Your task to perform on an android device: turn off javascript in the chrome app Image 0: 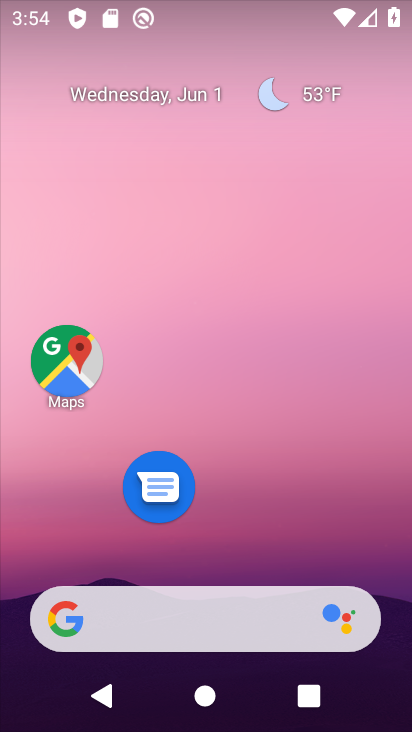
Step 0: drag from (230, 526) to (308, 8)
Your task to perform on an android device: turn off javascript in the chrome app Image 1: 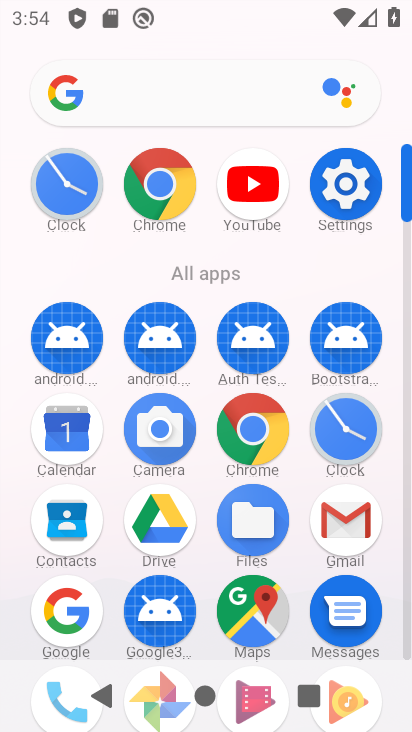
Step 1: click (251, 428)
Your task to perform on an android device: turn off javascript in the chrome app Image 2: 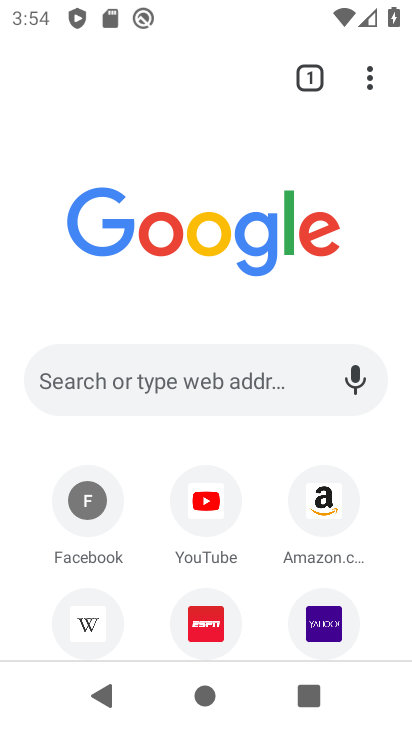
Step 2: click (356, 78)
Your task to perform on an android device: turn off javascript in the chrome app Image 3: 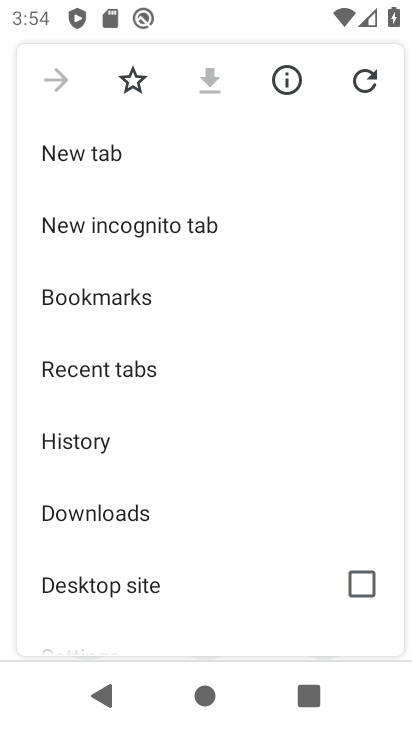
Step 3: drag from (131, 561) to (143, 349)
Your task to perform on an android device: turn off javascript in the chrome app Image 4: 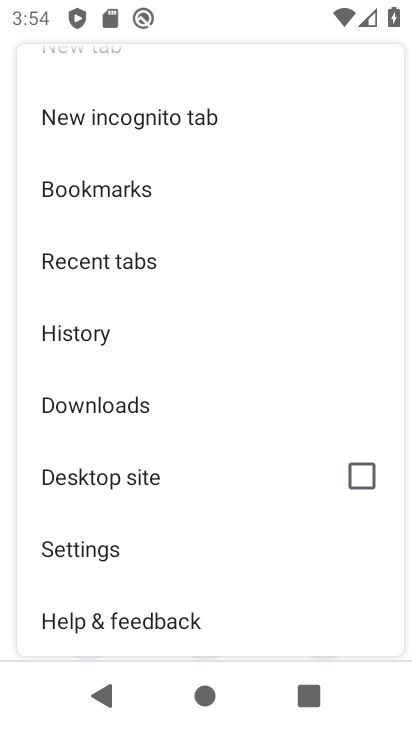
Step 4: click (101, 547)
Your task to perform on an android device: turn off javascript in the chrome app Image 5: 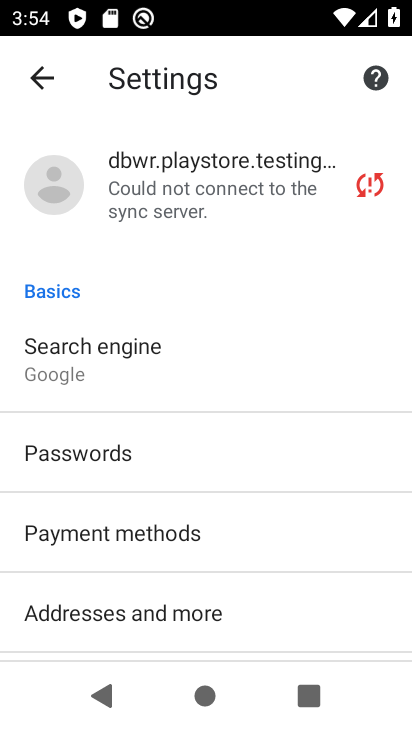
Step 5: drag from (191, 547) to (237, 75)
Your task to perform on an android device: turn off javascript in the chrome app Image 6: 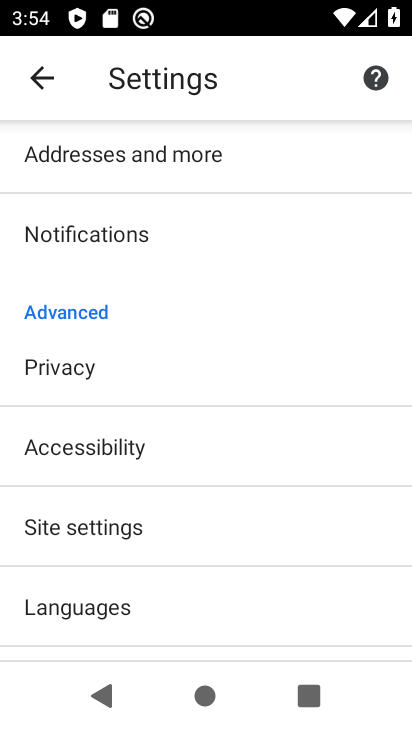
Step 6: click (118, 511)
Your task to perform on an android device: turn off javascript in the chrome app Image 7: 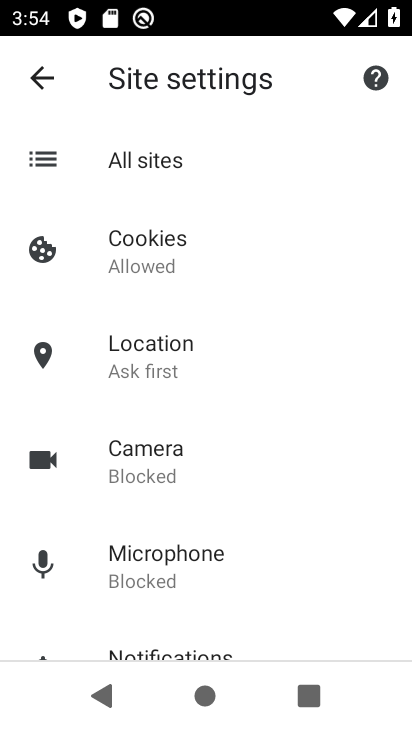
Step 7: drag from (206, 469) to (212, 175)
Your task to perform on an android device: turn off javascript in the chrome app Image 8: 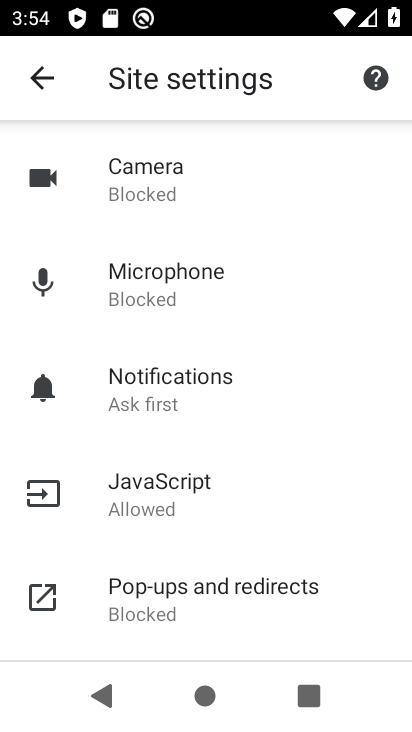
Step 8: click (184, 493)
Your task to perform on an android device: turn off javascript in the chrome app Image 9: 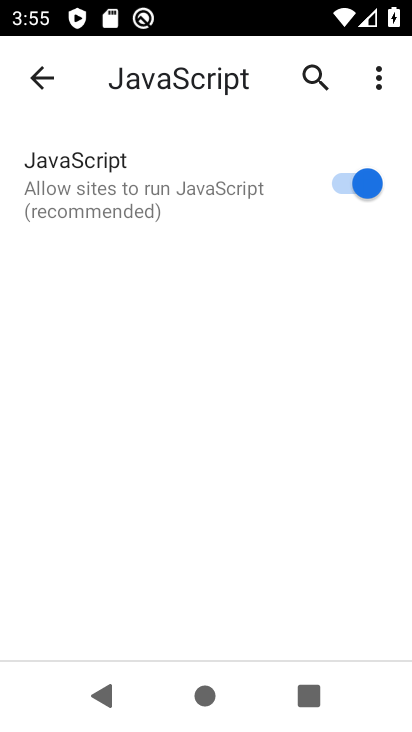
Step 9: click (318, 175)
Your task to perform on an android device: turn off javascript in the chrome app Image 10: 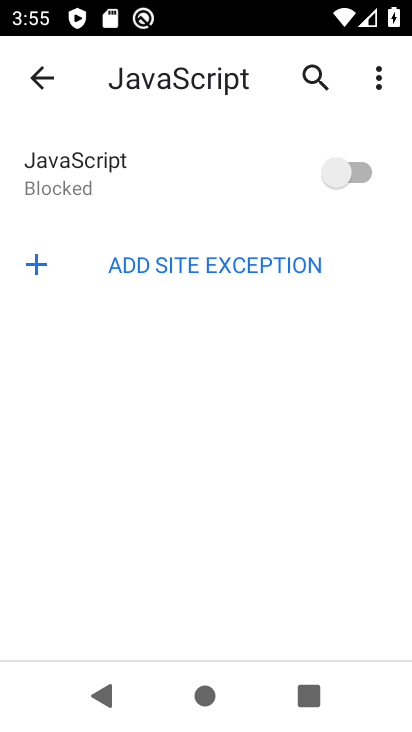
Step 10: task complete